Your task to perform on an android device: turn on showing notifications on the lock screen Image 0: 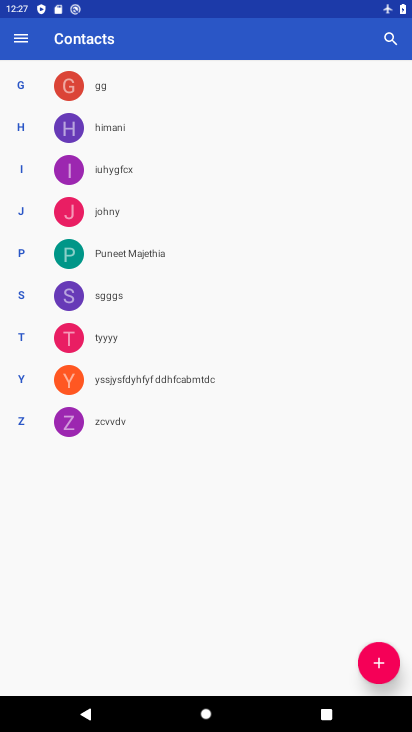
Step 0: press home button
Your task to perform on an android device: turn on showing notifications on the lock screen Image 1: 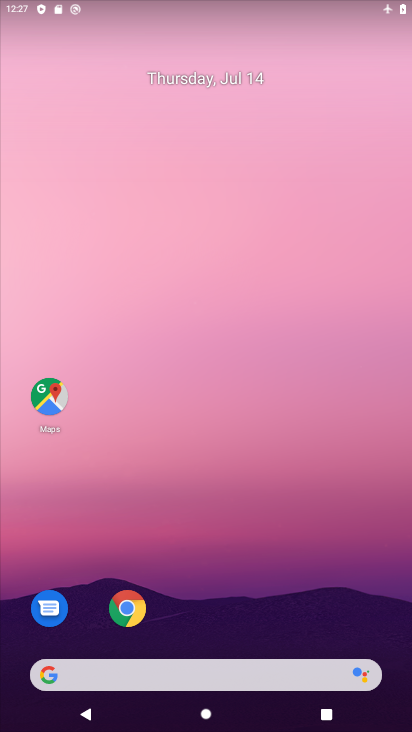
Step 1: drag from (349, 614) to (386, 171)
Your task to perform on an android device: turn on showing notifications on the lock screen Image 2: 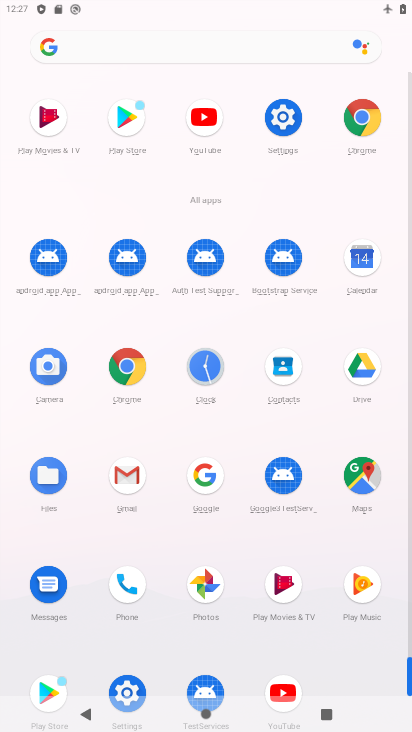
Step 2: click (288, 125)
Your task to perform on an android device: turn on showing notifications on the lock screen Image 3: 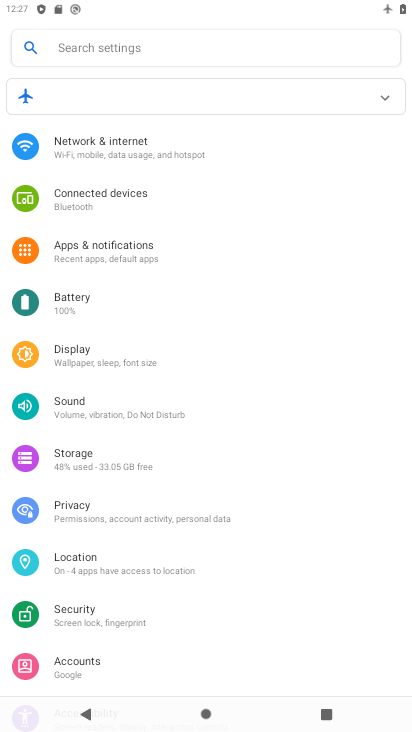
Step 3: drag from (319, 394) to (331, 324)
Your task to perform on an android device: turn on showing notifications on the lock screen Image 4: 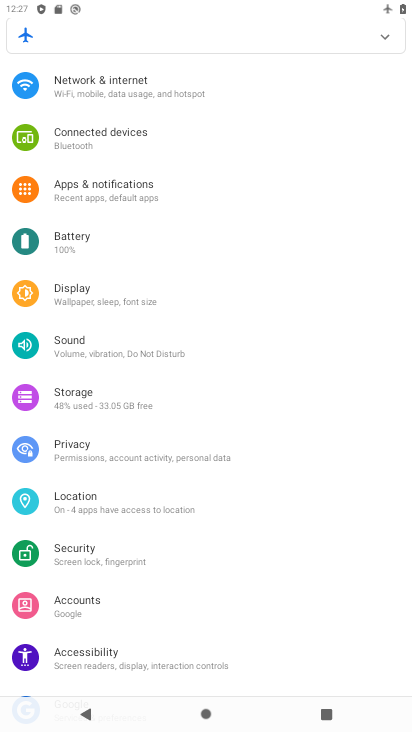
Step 4: drag from (346, 460) to (359, 326)
Your task to perform on an android device: turn on showing notifications on the lock screen Image 5: 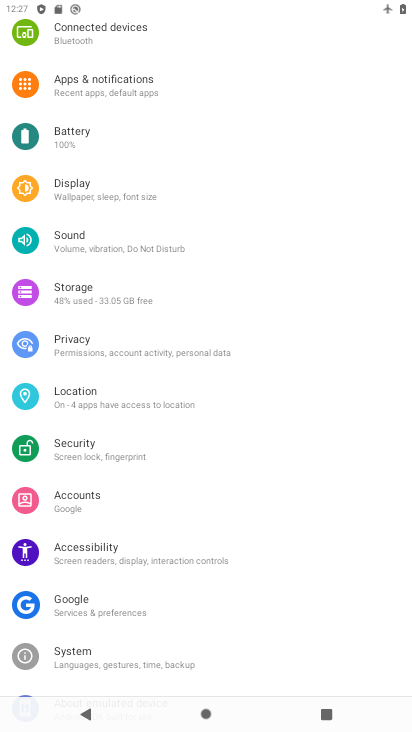
Step 5: drag from (348, 452) to (349, 390)
Your task to perform on an android device: turn on showing notifications on the lock screen Image 6: 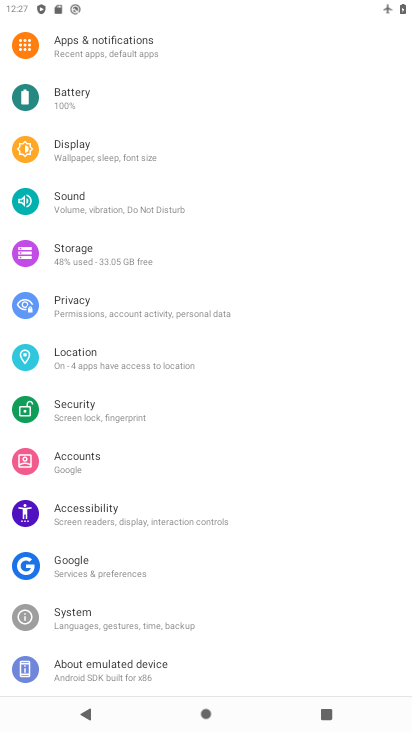
Step 6: drag from (330, 482) to (328, 374)
Your task to perform on an android device: turn on showing notifications on the lock screen Image 7: 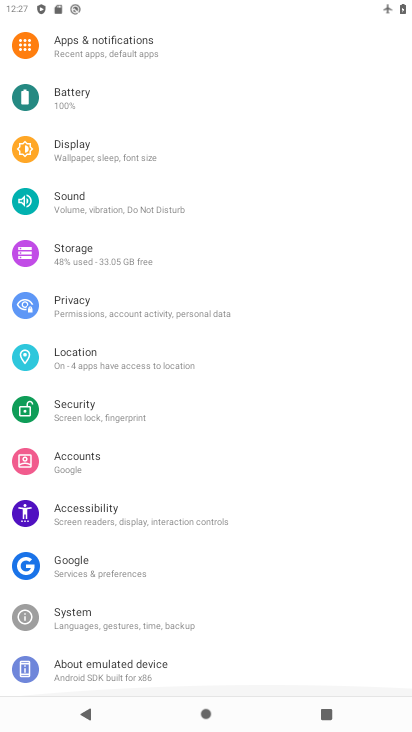
Step 7: drag from (320, 318) to (320, 391)
Your task to perform on an android device: turn on showing notifications on the lock screen Image 8: 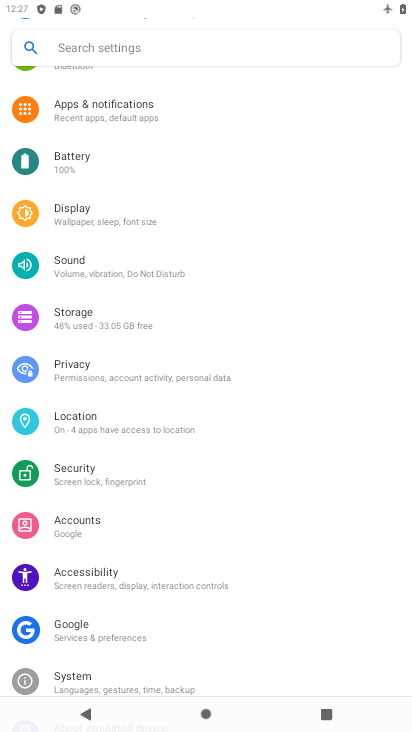
Step 8: drag from (322, 318) to (324, 380)
Your task to perform on an android device: turn on showing notifications on the lock screen Image 9: 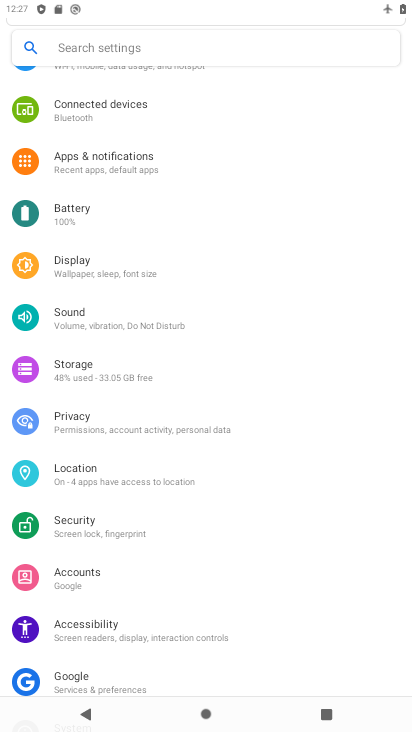
Step 9: drag from (325, 314) to (333, 368)
Your task to perform on an android device: turn on showing notifications on the lock screen Image 10: 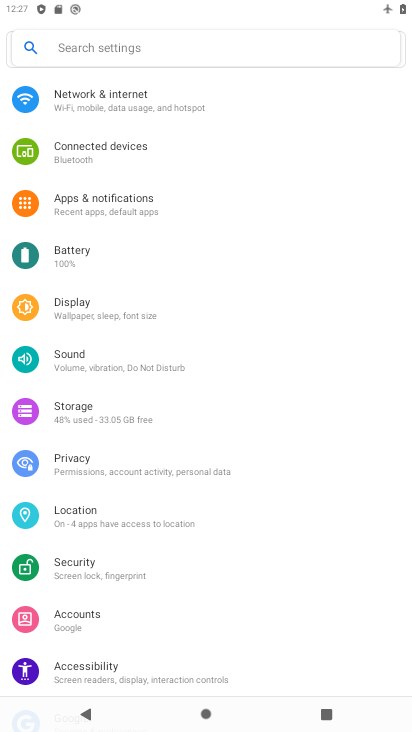
Step 10: drag from (333, 293) to (334, 356)
Your task to perform on an android device: turn on showing notifications on the lock screen Image 11: 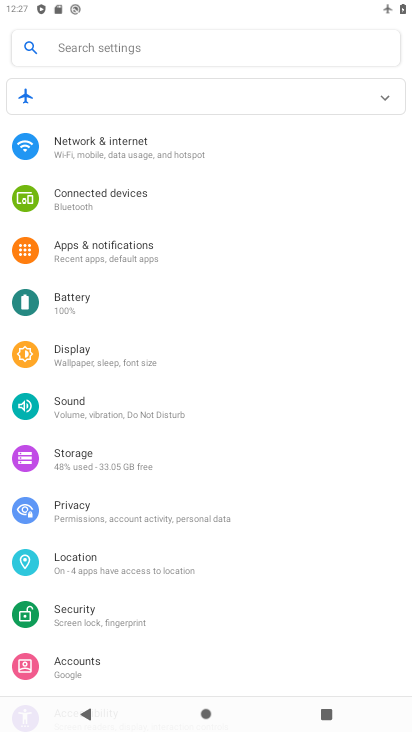
Step 11: drag from (328, 293) to (325, 378)
Your task to perform on an android device: turn on showing notifications on the lock screen Image 12: 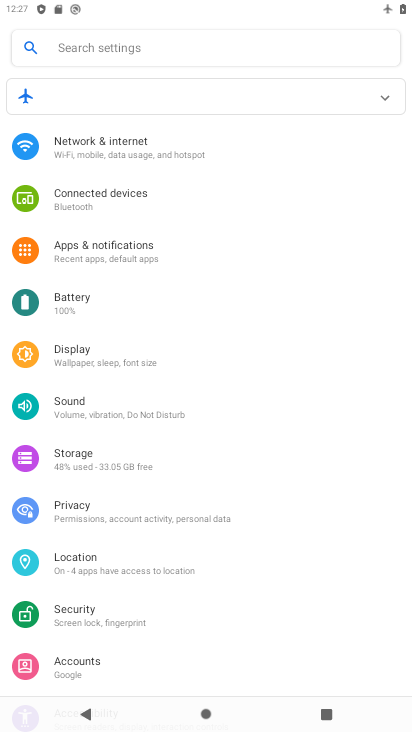
Step 12: click (157, 251)
Your task to perform on an android device: turn on showing notifications on the lock screen Image 13: 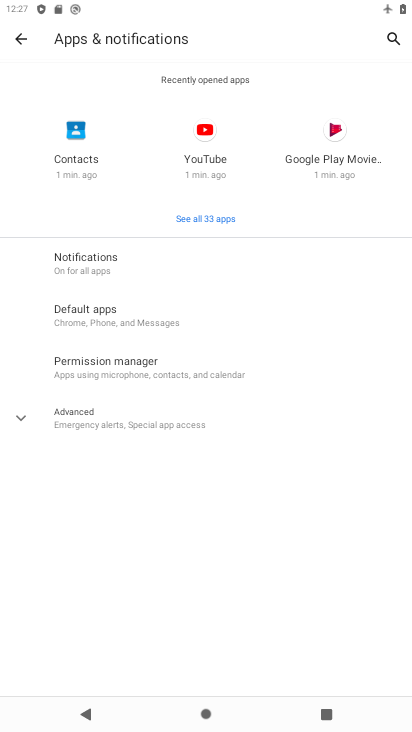
Step 13: click (154, 268)
Your task to perform on an android device: turn on showing notifications on the lock screen Image 14: 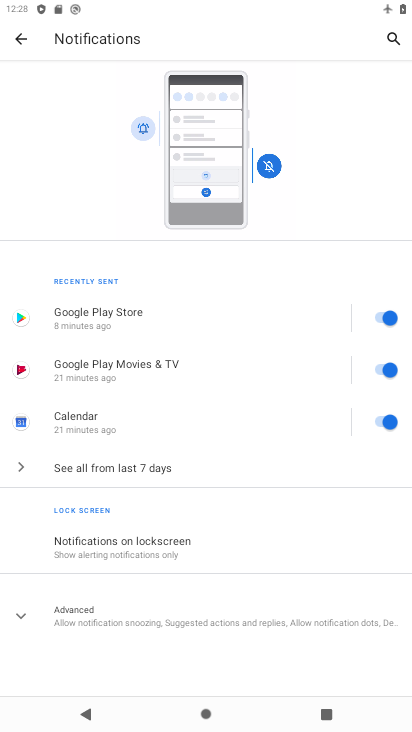
Step 14: click (231, 551)
Your task to perform on an android device: turn on showing notifications on the lock screen Image 15: 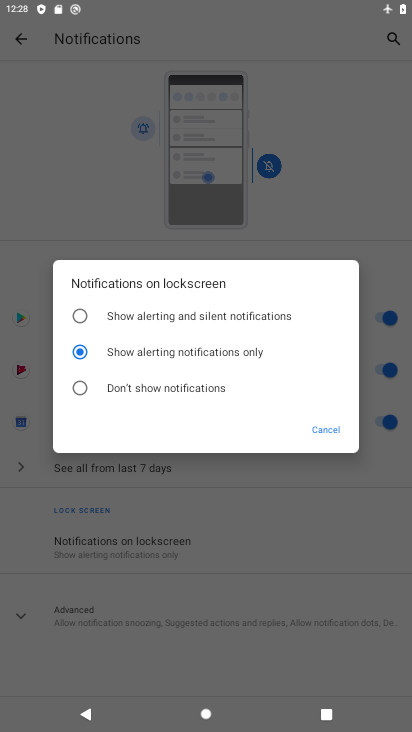
Step 15: task complete